Your task to perform on an android device: Show me the alarms in the clock app Image 0: 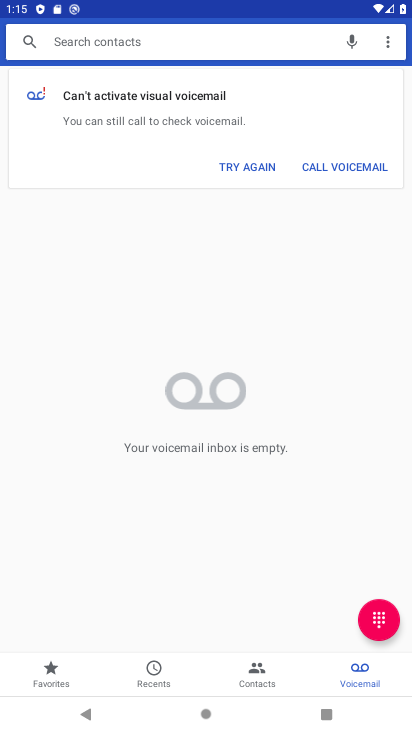
Step 0: press home button
Your task to perform on an android device: Show me the alarms in the clock app Image 1: 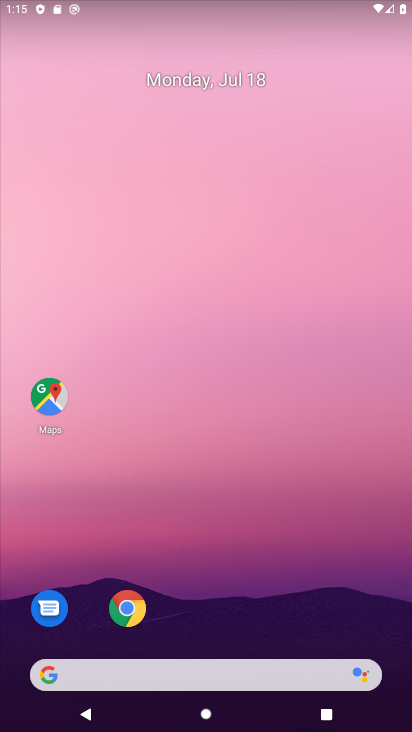
Step 1: drag from (230, 720) to (229, 205)
Your task to perform on an android device: Show me the alarms in the clock app Image 2: 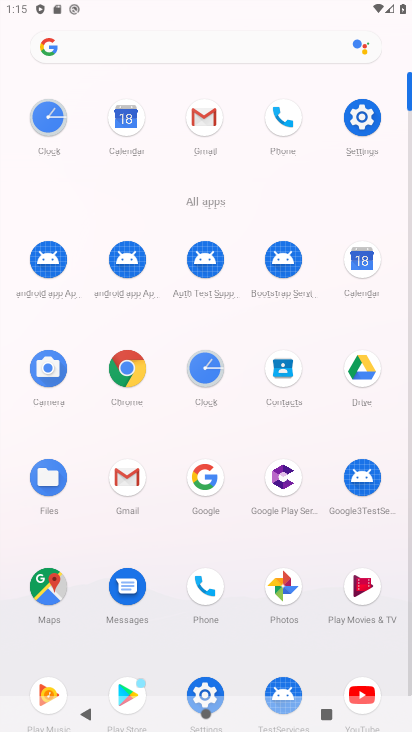
Step 2: click (206, 375)
Your task to perform on an android device: Show me the alarms in the clock app Image 3: 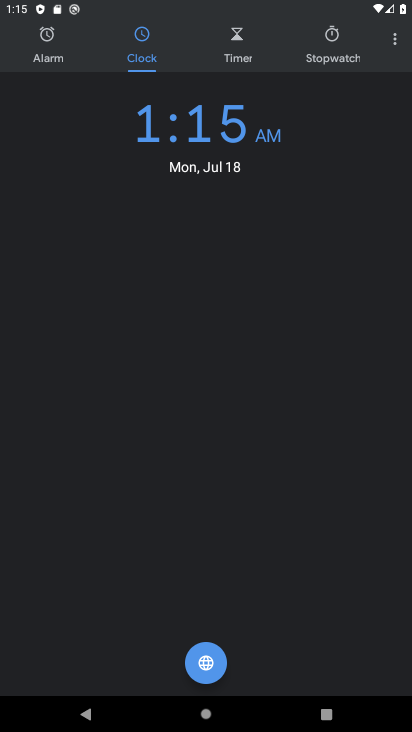
Step 3: click (42, 38)
Your task to perform on an android device: Show me the alarms in the clock app Image 4: 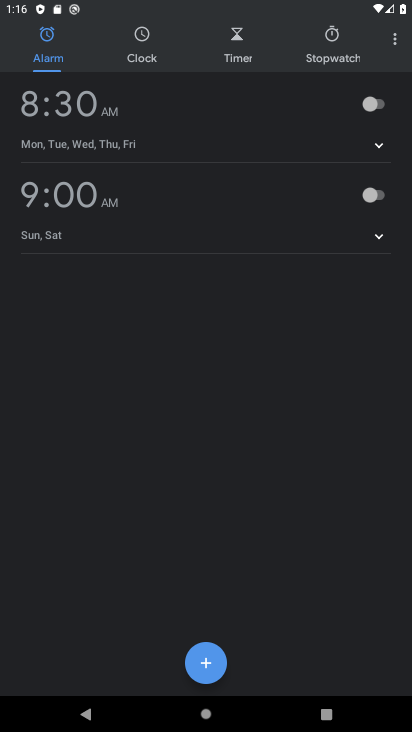
Step 4: task complete